Your task to perform on an android device: Open eBay Image 0: 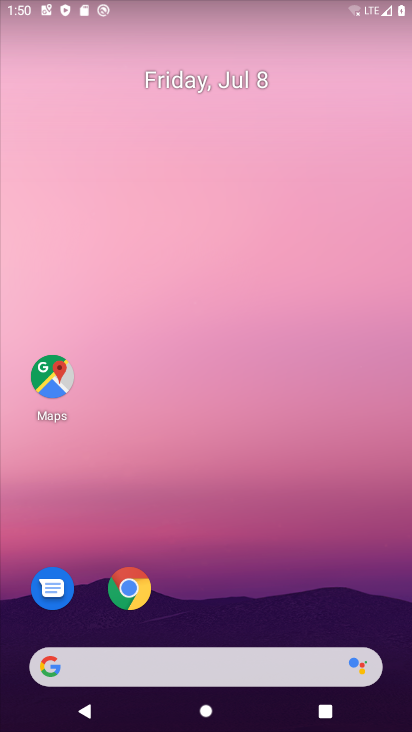
Step 0: press home button
Your task to perform on an android device: Open eBay Image 1: 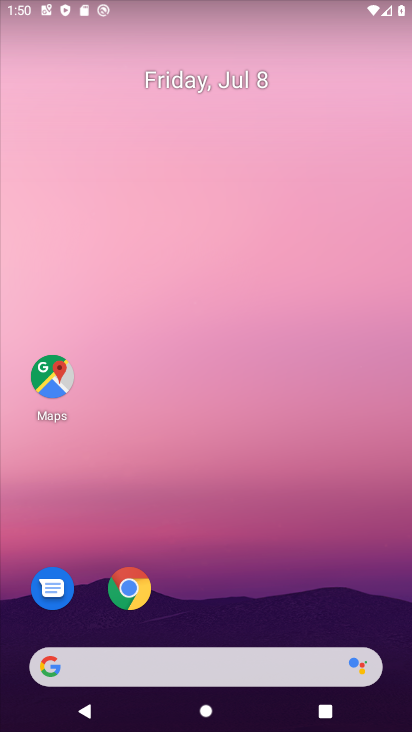
Step 1: click (51, 669)
Your task to perform on an android device: Open eBay Image 2: 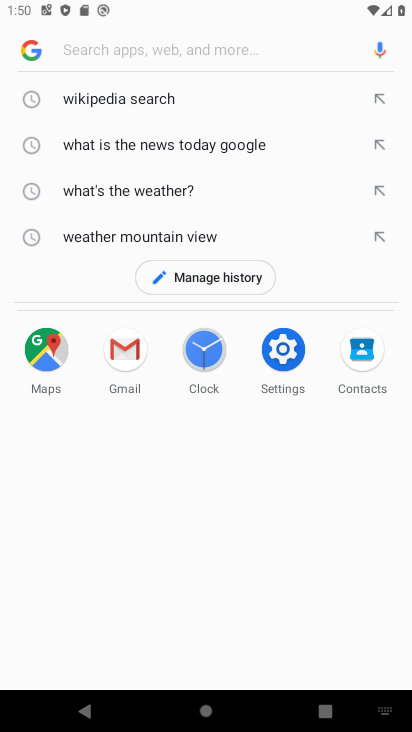
Step 2: type "ebay"
Your task to perform on an android device: Open eBay Image 3: 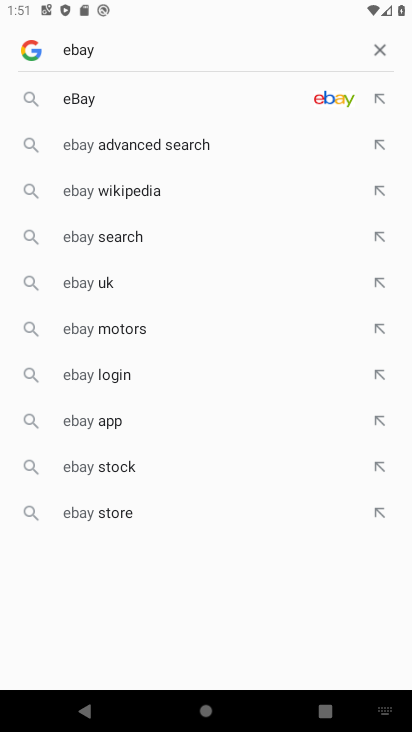
Step 3: click (91, 98)
Your task to perform on an android device: Open eBay Image 4: 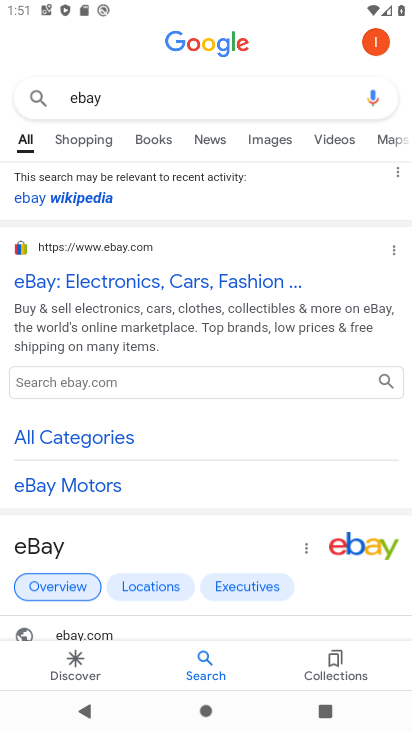
Step 4: click (149, 274)
Your task to perform on an android device: Open eBay Image 5: 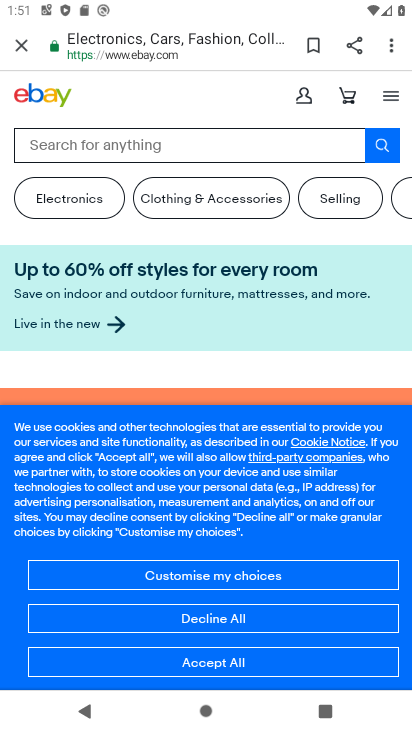
Step 5: task complete